Your task to perform on an android device: Go to Android settings Image 0: 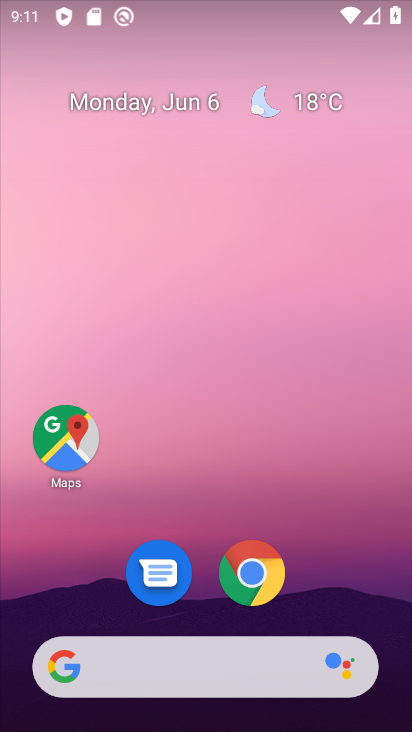
Step 0: drag from (395, 615) to (296, 99)
Your task to perform on an android device: Go to Android settings Image 1: 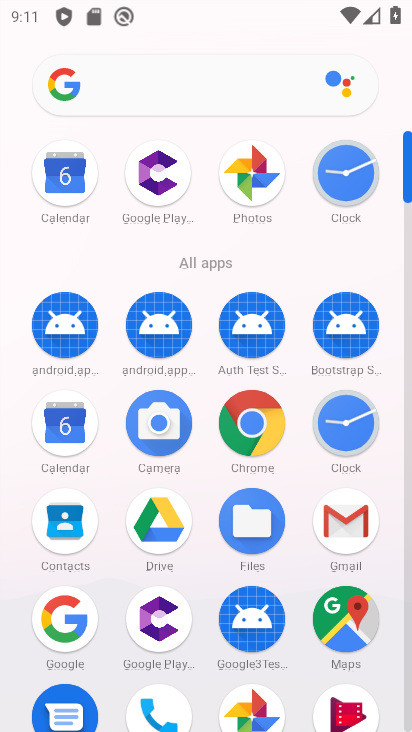
Step 1: click (408, 727)
Your task to perform on an android device: Go to Android settings Image 2: 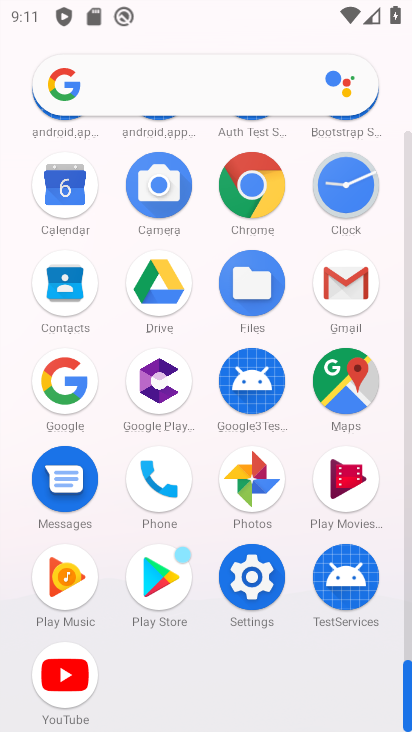
Step 2: click (254, 601)
Your task to perform on an android device: Go to Android settings Image 3: 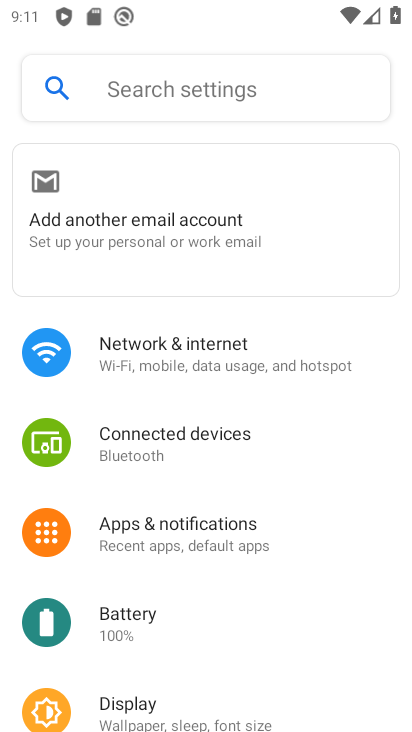
Step 3: task complete